Your task to perform on an android device: turn off priority inbox in the gmail app Image 0: 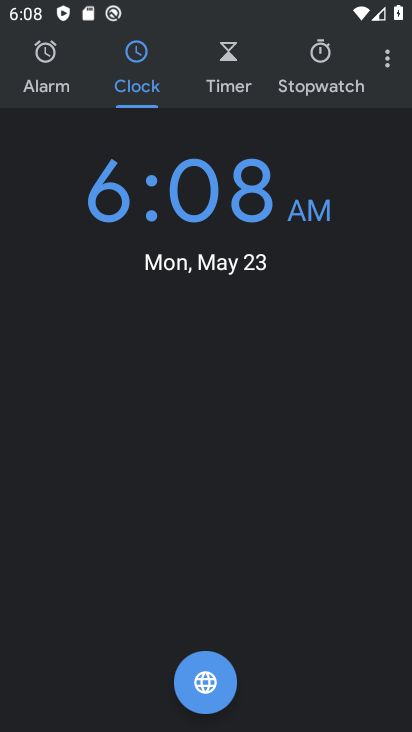
Step 0: press home button
Your task to perform on an android device: turn off priority inbox in the gmail app Image 1: 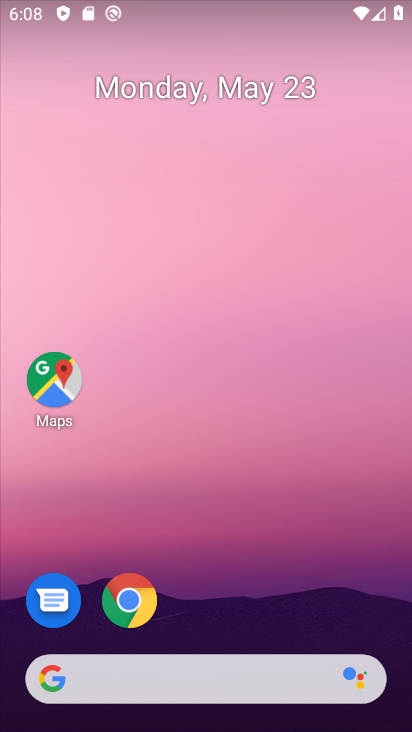
Step 1: drag from (199, 550) to (172, 134)
Your task to perform on an android device: turn off priority inbox in the gmail app Image 2: 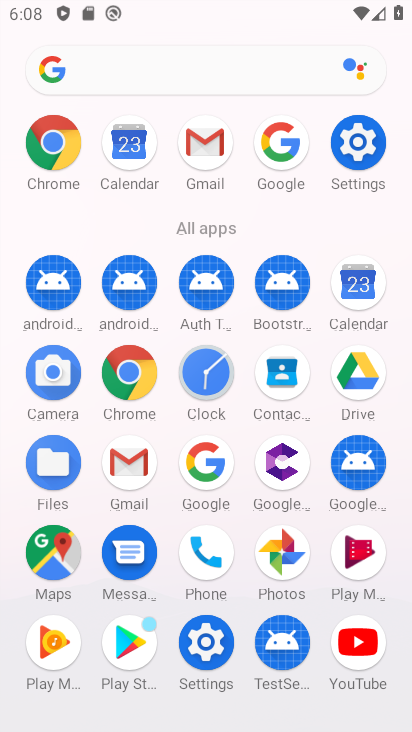
Step 2: click (127, 481)
Your task to perform on an android device: turn off priority inbox in the gmail app Image 3: 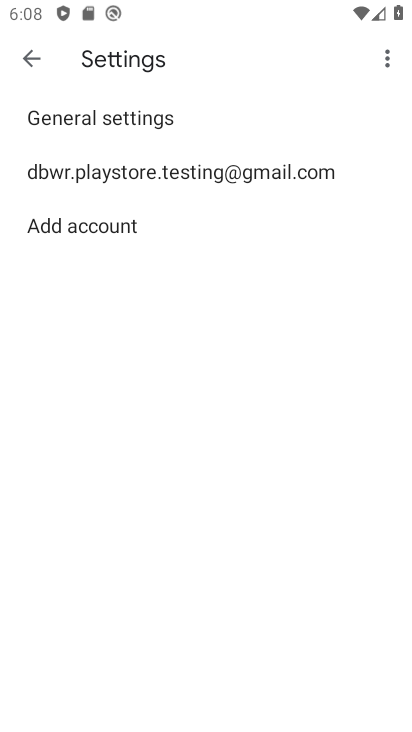
Step 3: click (240, 167)
Your task to perform on an android device: turn off priority inbox in the gmail app Image 4: 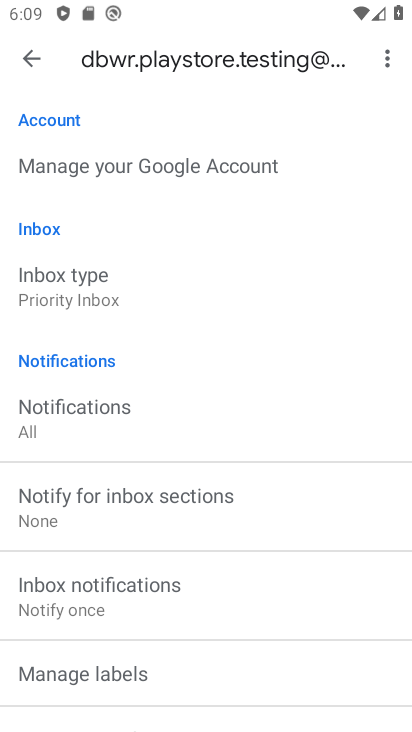
Step 4: drag from (88, 627) to (192, 506)
Your task to perform on an android device: turn off priority inbox in the gmail app Image 5: 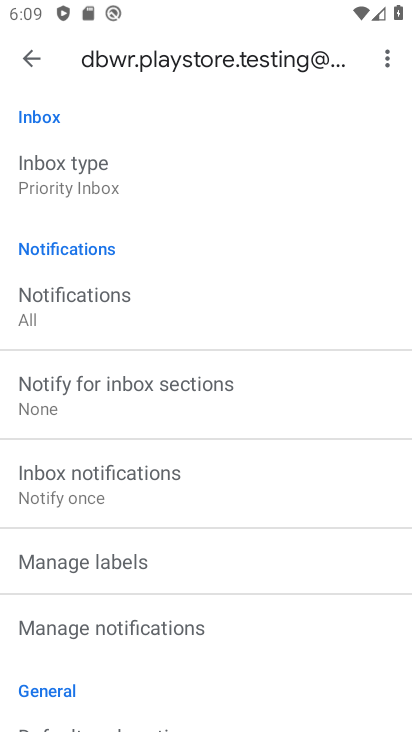
Step 5: click (120, 198)
Your task to perform on an android device: turn off priority inbox in the gmail app Image 6: 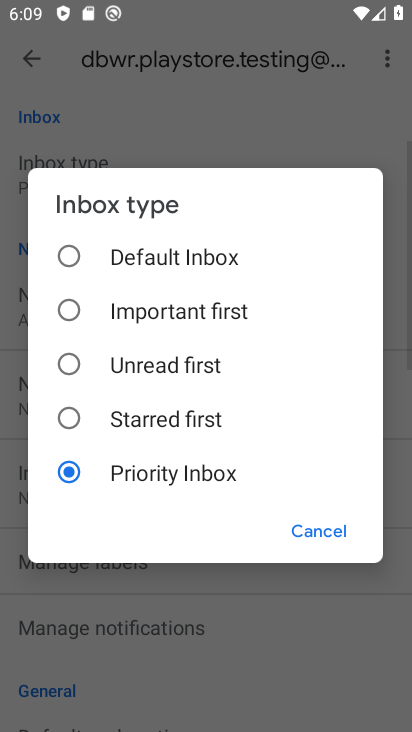
Step 6: click (133, 268)
Your task to perform on an android device: turn off priority inbox in the gmail app Image 7: 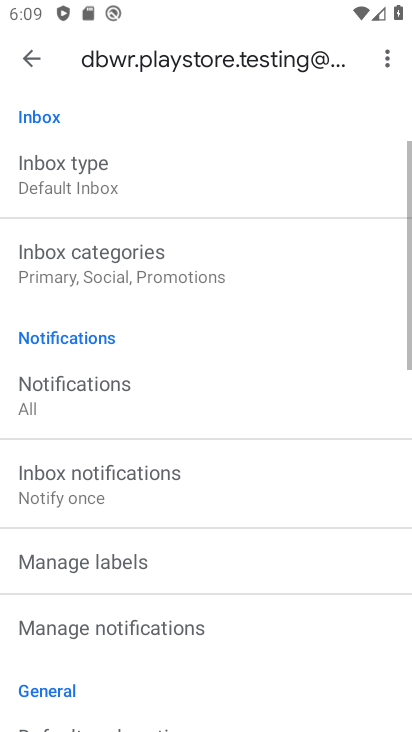
Step 7: task complete